Your task to perform on an android device: open sync settings in chrome Image 0: 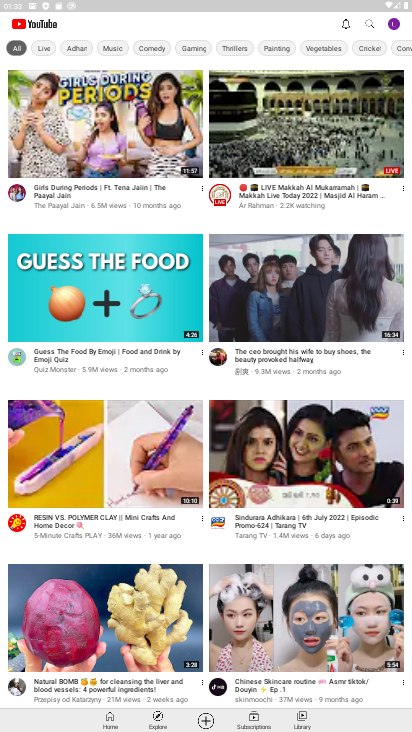
Step 0: press home button
Your task to perform on an android device: open sync settings in chrome Image 1: 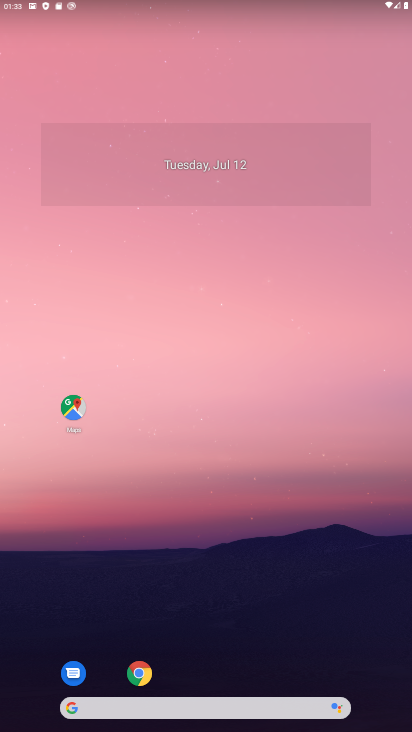
Step 1: drag from (291, 593) to (271, 83)
Your task to perform on an android device: open sync settings in chrome Image 2: 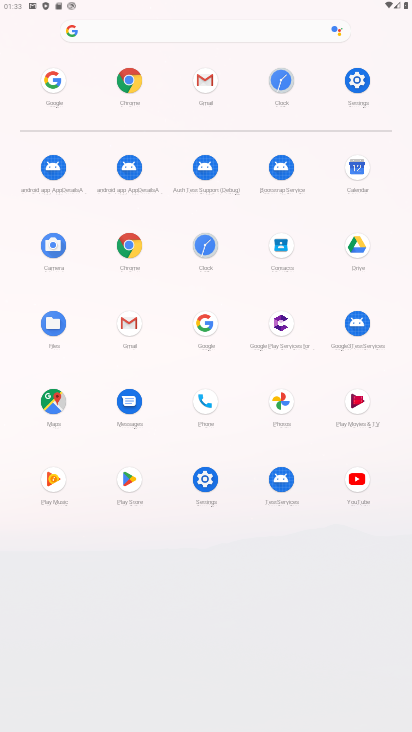
Step 2: click (348, 80)
Your task to perform on an android device: open sync settings in chrome Image 3: 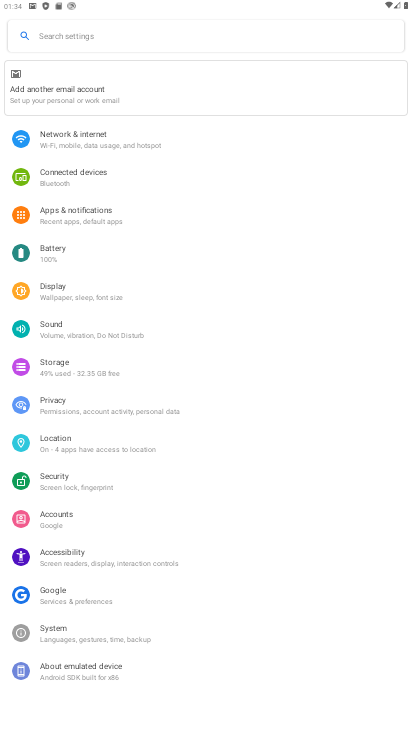
Step 3: press back button
Your task to perform on an android device: open sync settings in chrome Image 4: 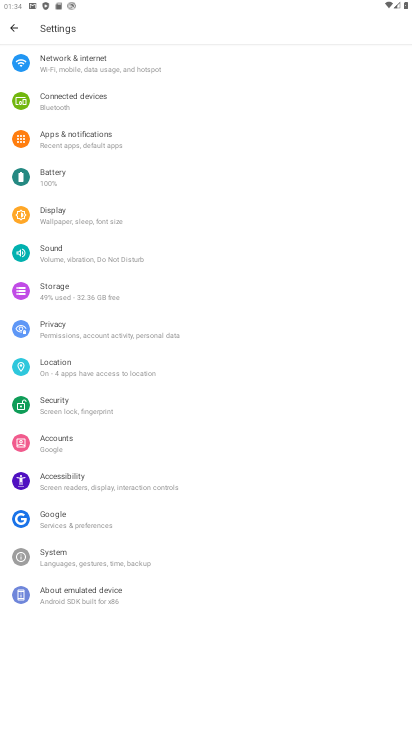
Step 4: press back button
Your task to perform on an android device: open sync settings in chrome Image 5: 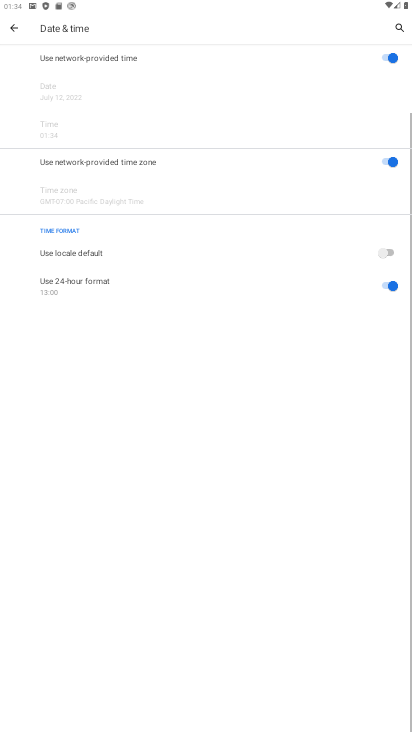
Step 5: press home button
Your task to perform on an android device: open sync settings in chrome Image 6: 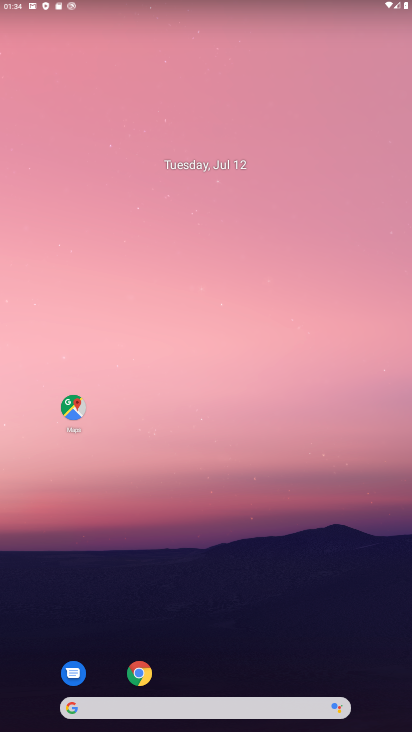
Step 6: press home button
Your task to perform on an android device: open sync settings in chrome Image 7: 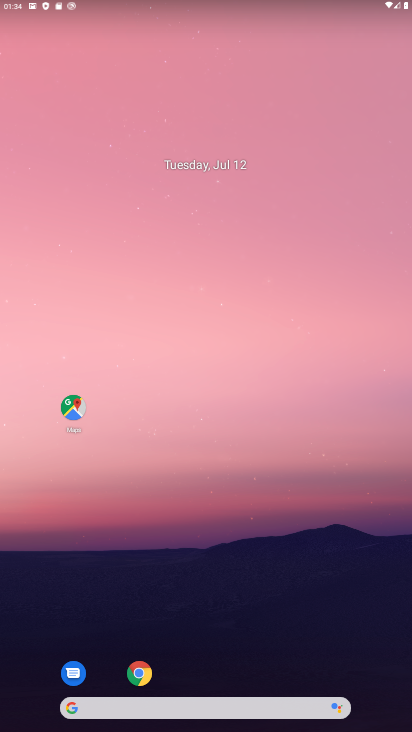
Step 7: click (141, 671)
Your task to perform on an android device: open sync settings in chrome Image 8: 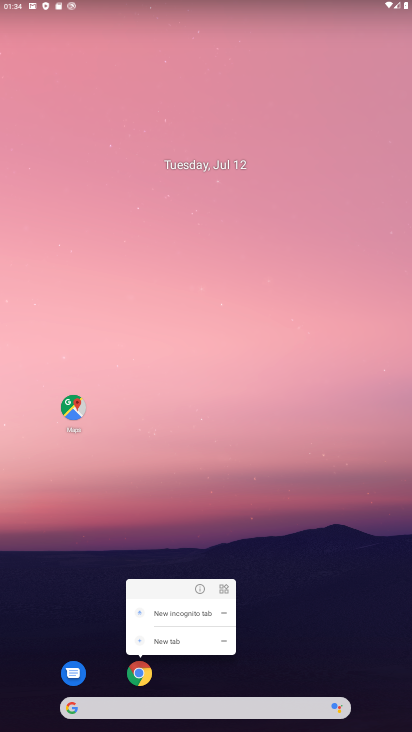
Step 8: click (129, 678)
Your task to perform on an android device: open sync settings in chrome Image 9: 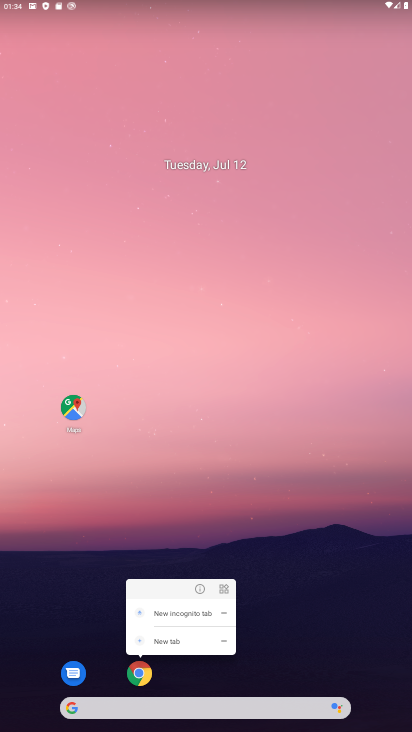
Step 9: click (138, 674)
Your task to perform on an android device: open sync settings in chrome Image 10: 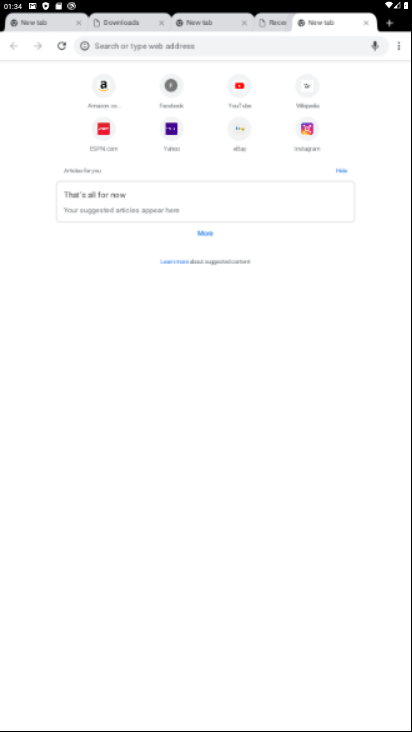
Step 10: drag from (395, 43) to (392, 91)
Your task to perform on an android device: open sync settings in chrome Image 11: 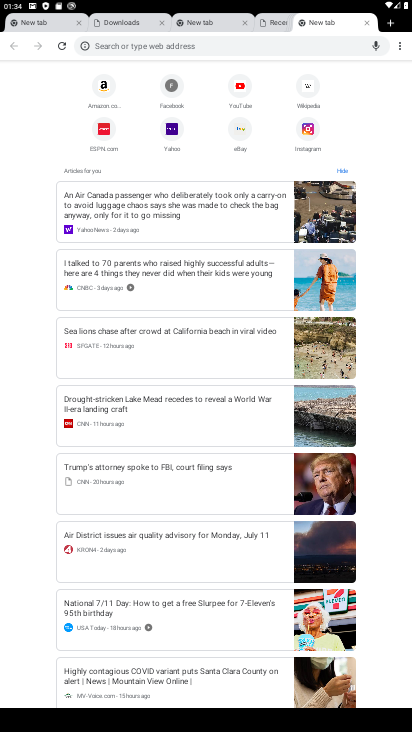
Step 11: drag from (393, 49) to (299, 213)
Your task to perform on an android device: open sync settings in chrome Image 12: 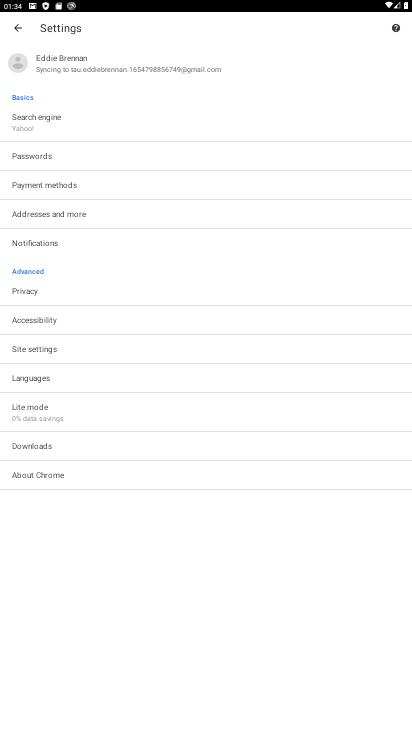
Step 12: click (26, 350)
Your task to perform on an android device: open sync settings in chrome Image 13: 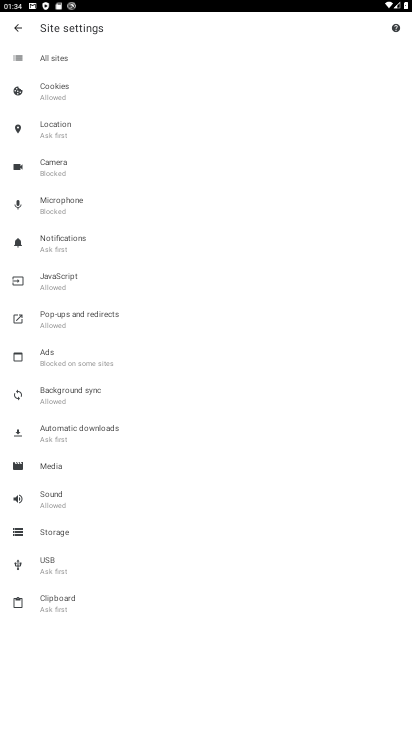
Step 13: click (56, 395)
Your task to perform on an android device: open sync settings in chrome Image 14: 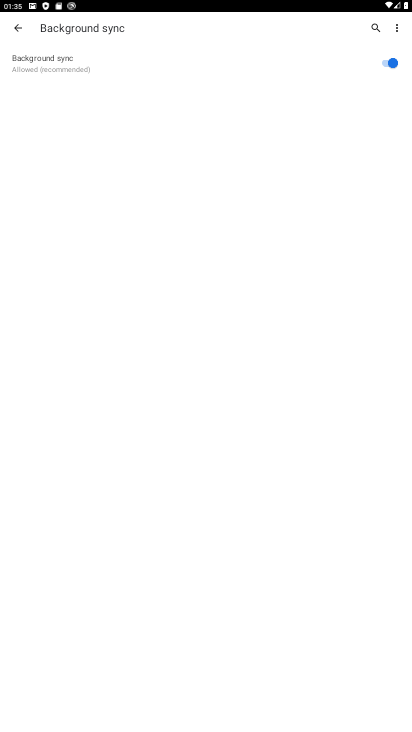
Step 14: task complete